Your task to perform on an android device: check data usage Image 0: 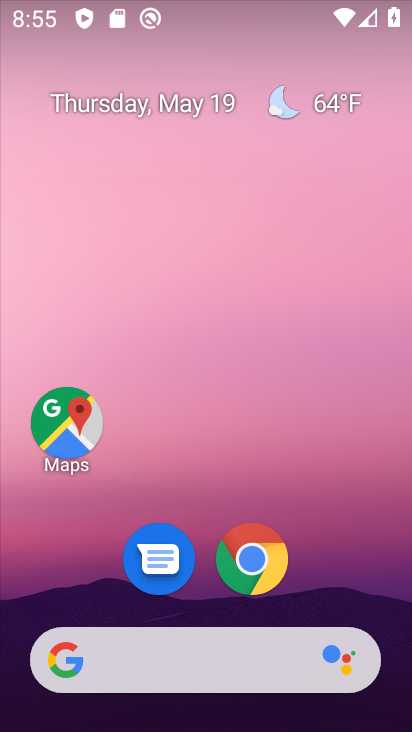
Step 0: drag from (201, 717) to (220, 205)
Your task to perform on an android device: check data usage Image 1: 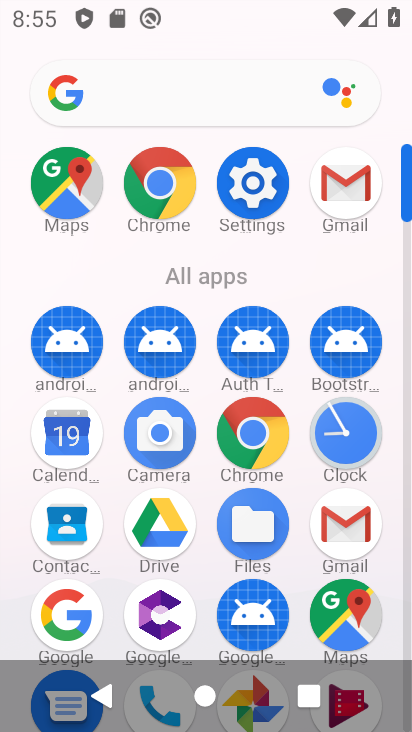
Step 1: click (247, 186)
Your task to perform on an android device: check data usage Image 2: 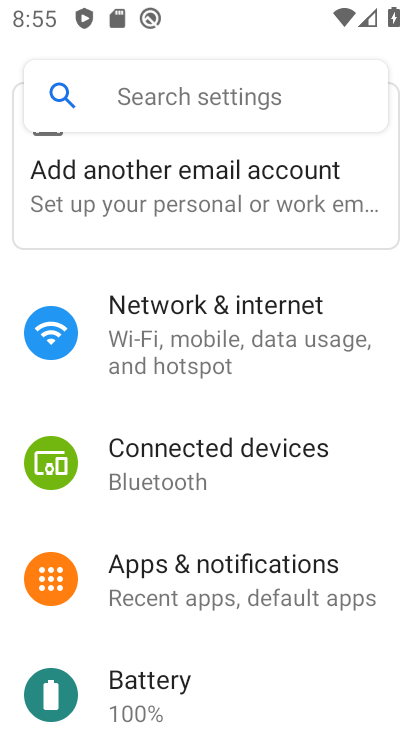
Step 2: click (191, 335)
Your task to perform on an android device: check data usage Image 3: 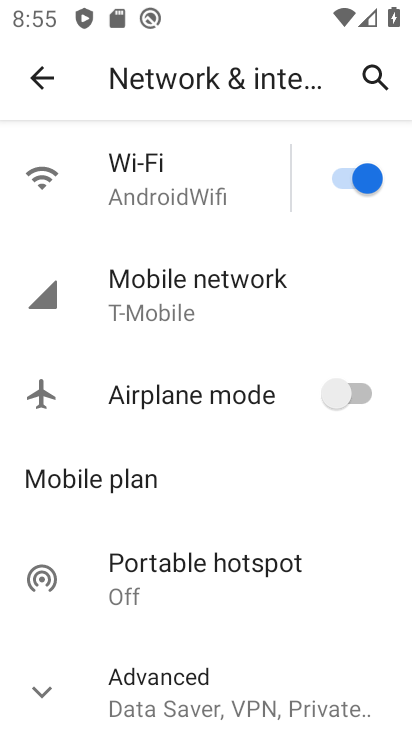
Step 3: click (171, 291)
Your task to perform on an android device: check data usage Image 4: 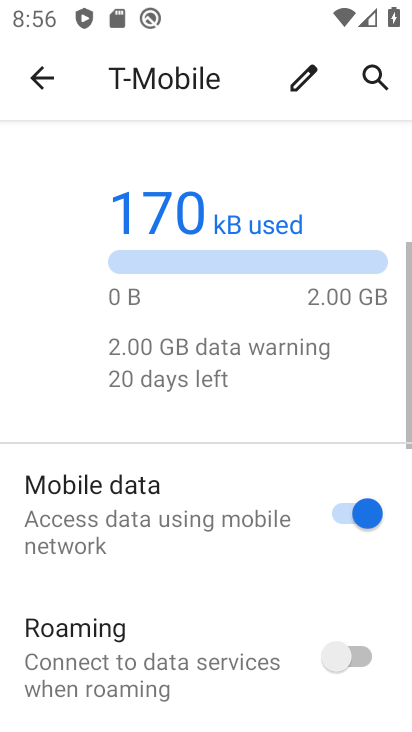
Step 4: drag from (209, 590) to (236, 349)
Your task to perform on an android device: check data usage Image 5: 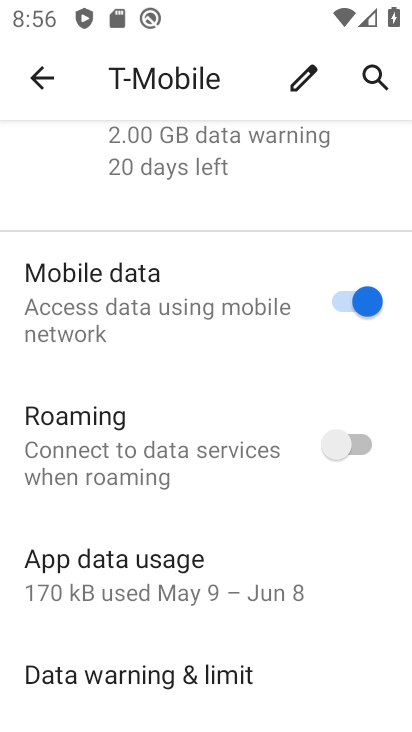
Step 5: click (155, 569)
Your task to perform on an android device: check data usage Image 6: 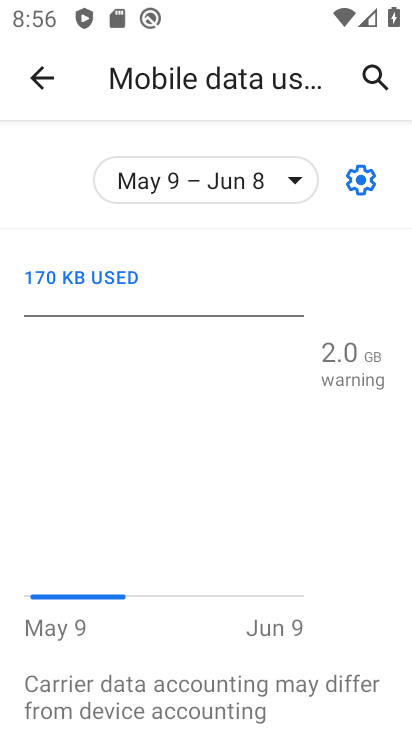
Step 6: task complete